Your task to perform on an android device: Open Google Chrome and open the bookmarks view Image 0: 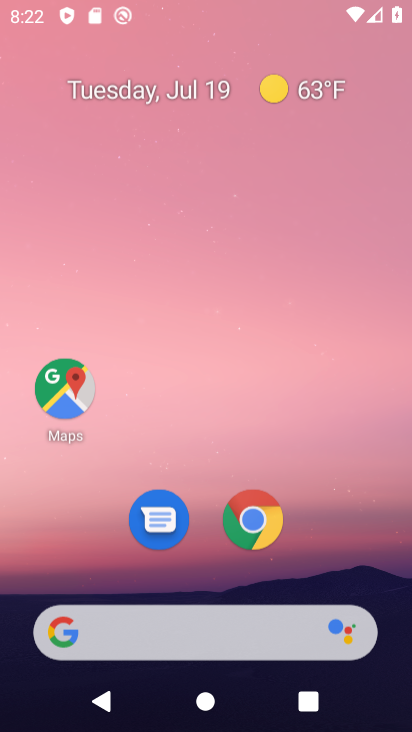
Step 0: press home button
Your task to perform on an android device: Open Google Chrome and open the bookmarks view Image 1: 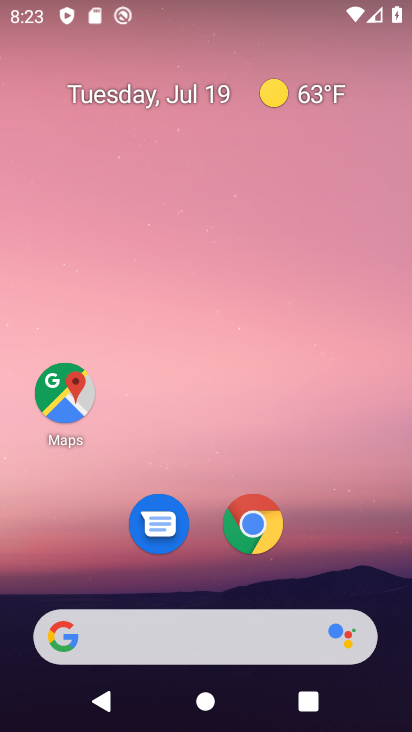
Step 1: press home button
Your task to perform on an android device: Open Google Chrome and open the bookmarks view Image 2: 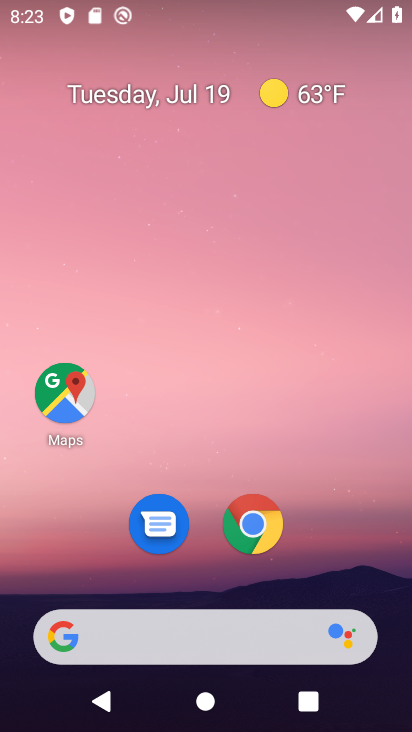
Step 2: click (251, 517)
Your task to perform on an android device: Open Google Chrome and open the bookmarks view Image 3: 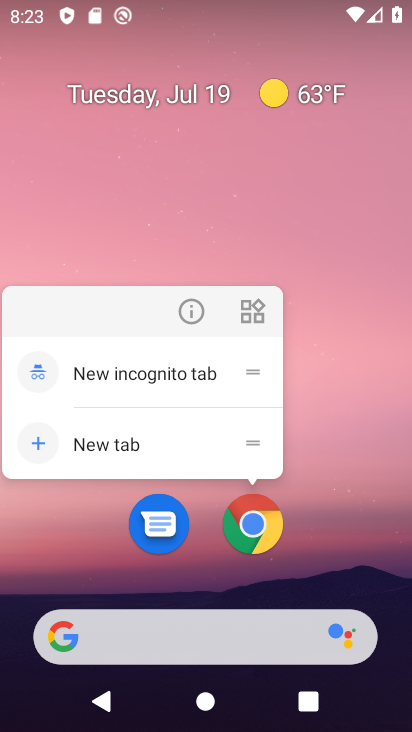
Step 3: click (251, 518)
Your task to perform on an android device: Open Google Chrome and open the bookmarks view Image 4: 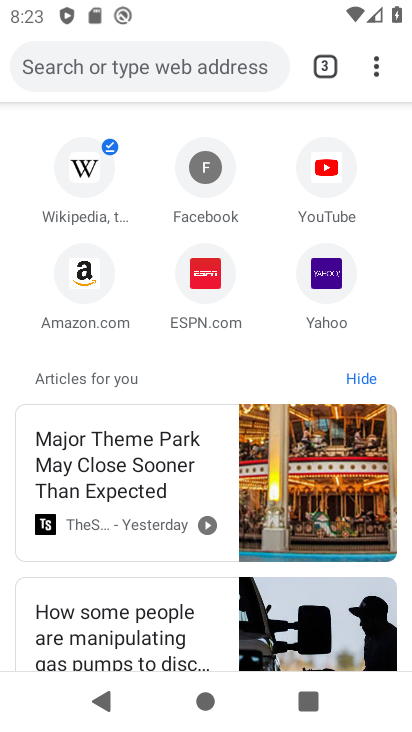
Step 4: task complete